Your task to perform on an android device: turn off location history Image 0: 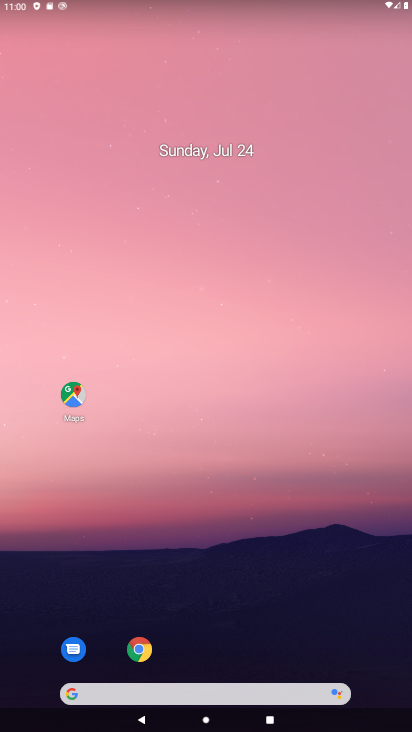
Step 0: drag from (194, 693) to (150, 367)
Your task to perform on an android device: turn off location history Image 1: 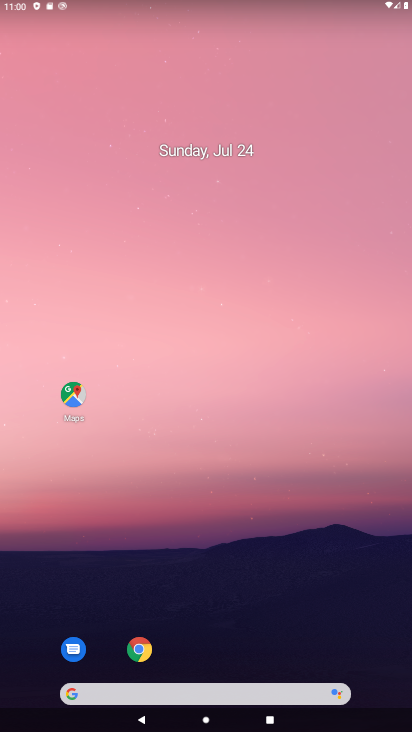
Step 1: drag from (189, 695) to (170, 255)
Your task to perform on an android device: turn off location history Image 2: 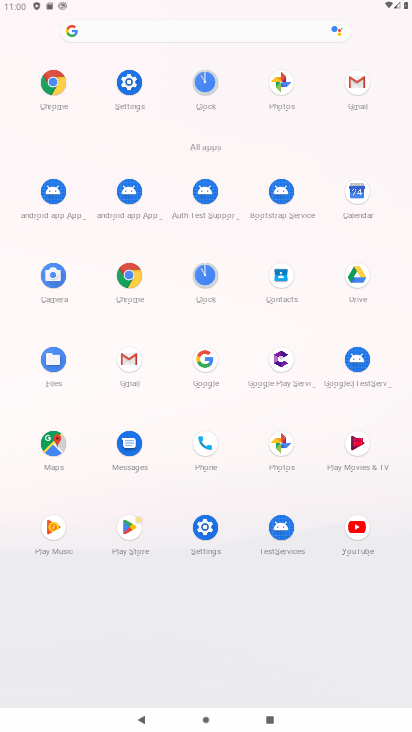
Step 2: click (201, 528)
Your task to perform on an android device: turn off location history Image 3: 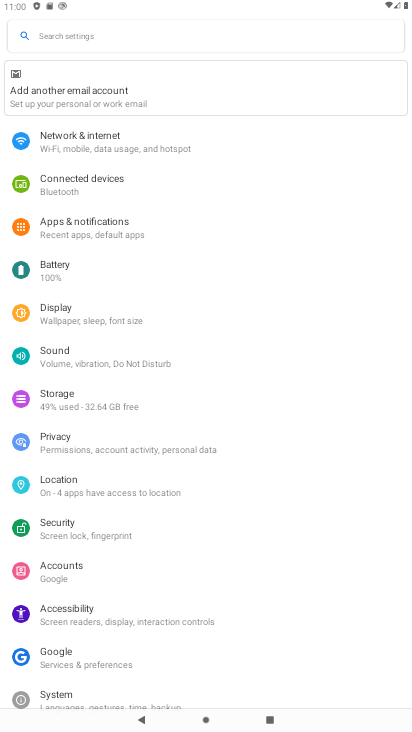
Step 3: click (93, 481)
Your task to perform on an android device: turn off location history Image 4: 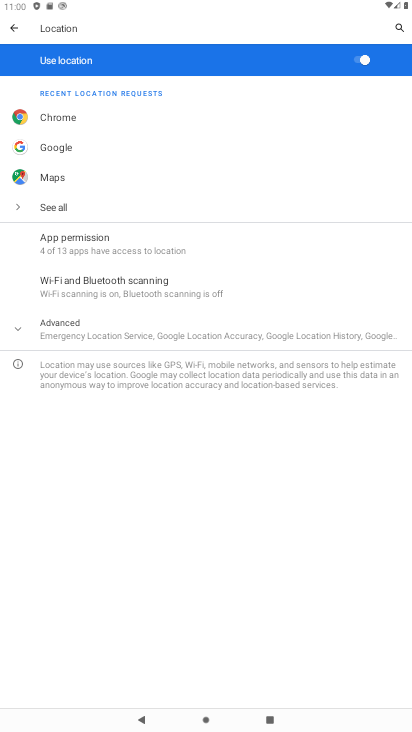
Step 4: click (100, 328)
Your task to perform on an android device: turn off location history Image 5: 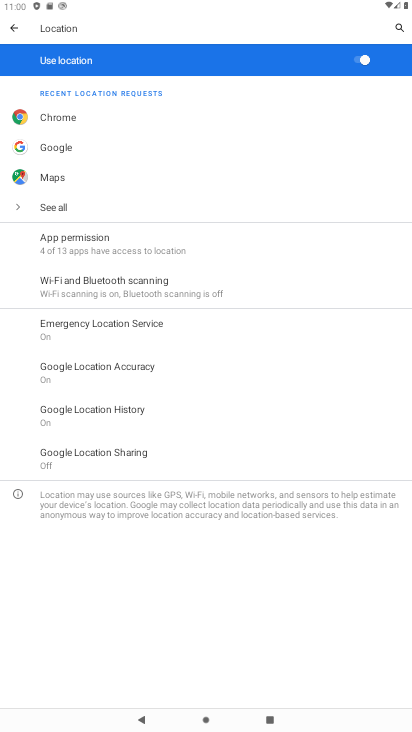
Step 5: click (156, 408)
Your task to perform on an android device: turn off location history Image 6: 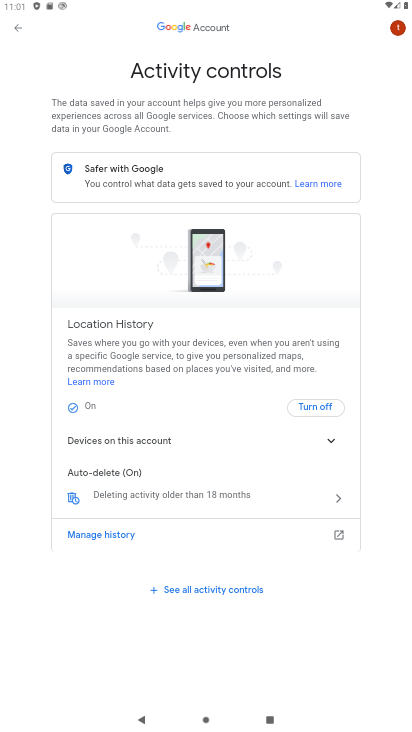
Step 6: click (316, 404)
Your task to perform on an android device: turn off location history Image 7: 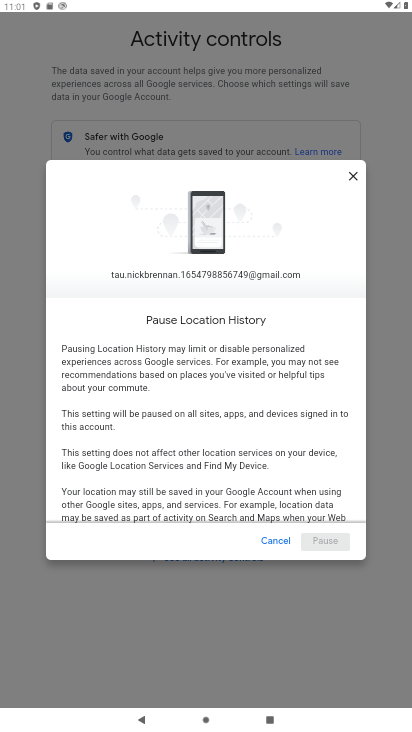
Step 7: drag from (190, 5) to (95, 67)
Your task to perform on an android device: turn off location history Image 8: 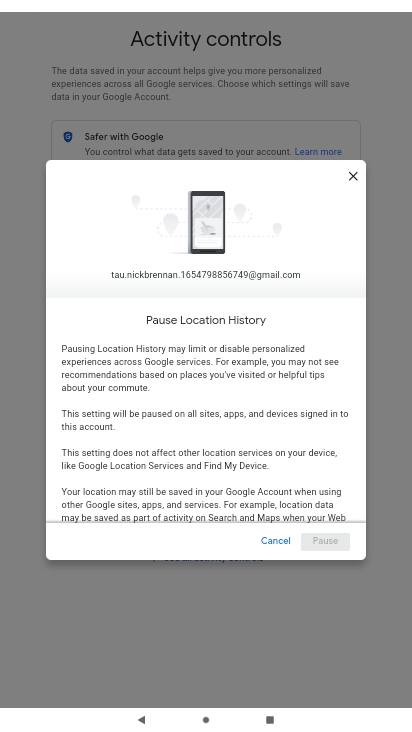
Step 8: drag from (202, 488) to (187, 114)
Your task to perform on an android device: turn off location history Image 9: 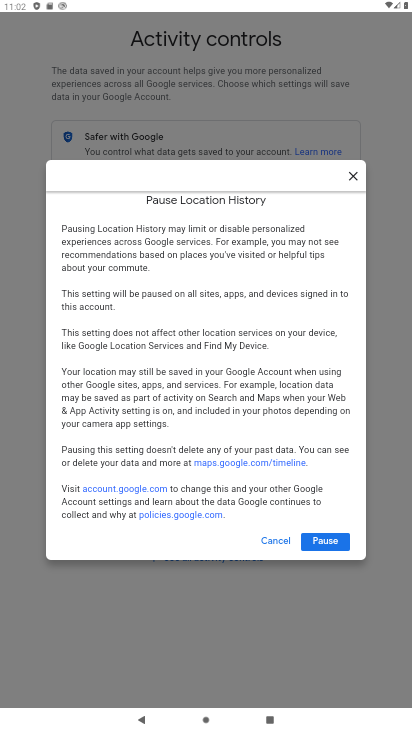
Step 9: click (322, 550)
Your task to perform on an android device: turn off location history Image 10: 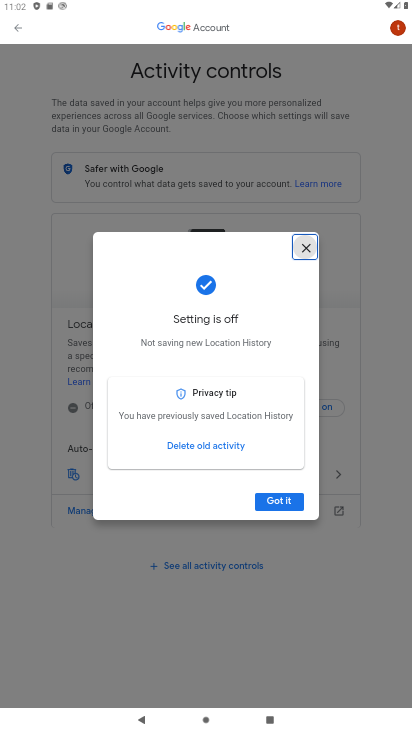
Step 10: click (270, 501)
Your task to perform on an android device: turn off location history Image 11: 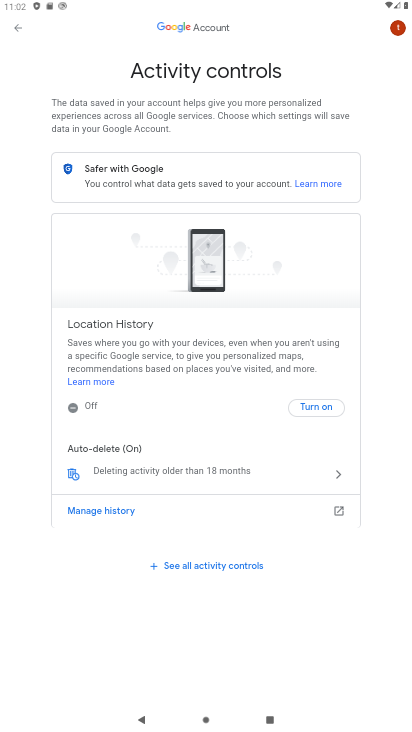
Step 11: task complete